Your task to perform on an android device: open app "Adobe Express: Graphic Design" (install if not already installed) Image 0: 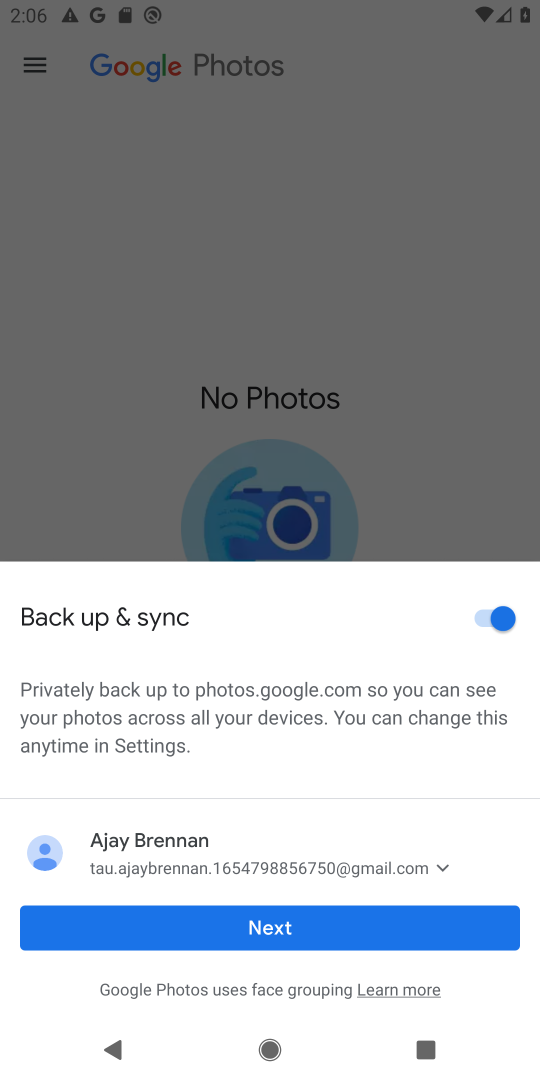
Step 0: press home button
Your task to perform on an android device: open app "Adobe Express: Graphic Design" (install if not already installed) Image 1: 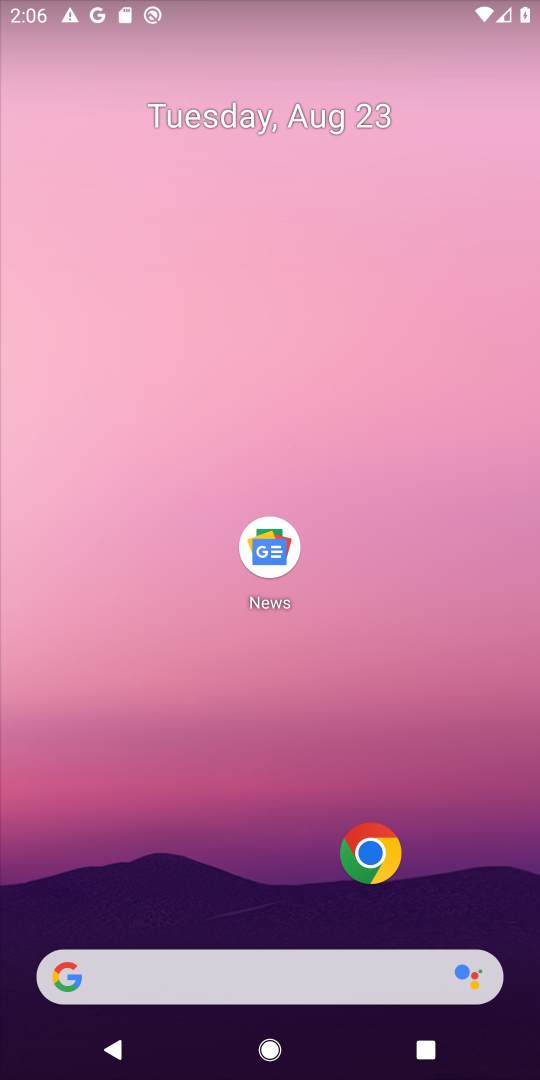
Step 1: drag from (515, 941) to (434, 115)
Your task to perform on an android device: open app "Adobe Express: Graphic Design" (install if not already installed) Image 2: 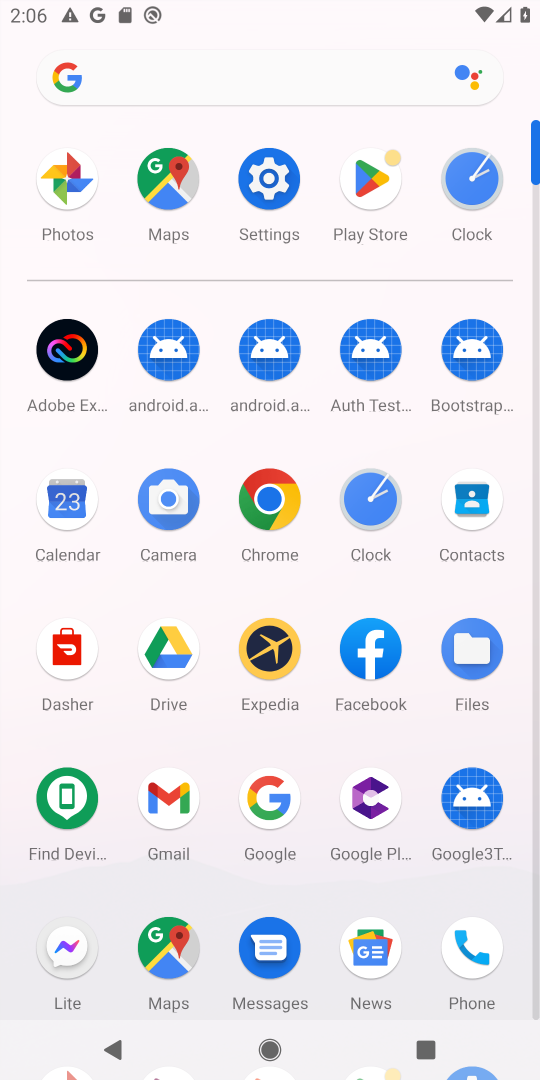
Step 2: click (538, 980)
Your task to perform on an android device: open app "Adobe Express: Graphic Design" (install if not already installed) Image 3: 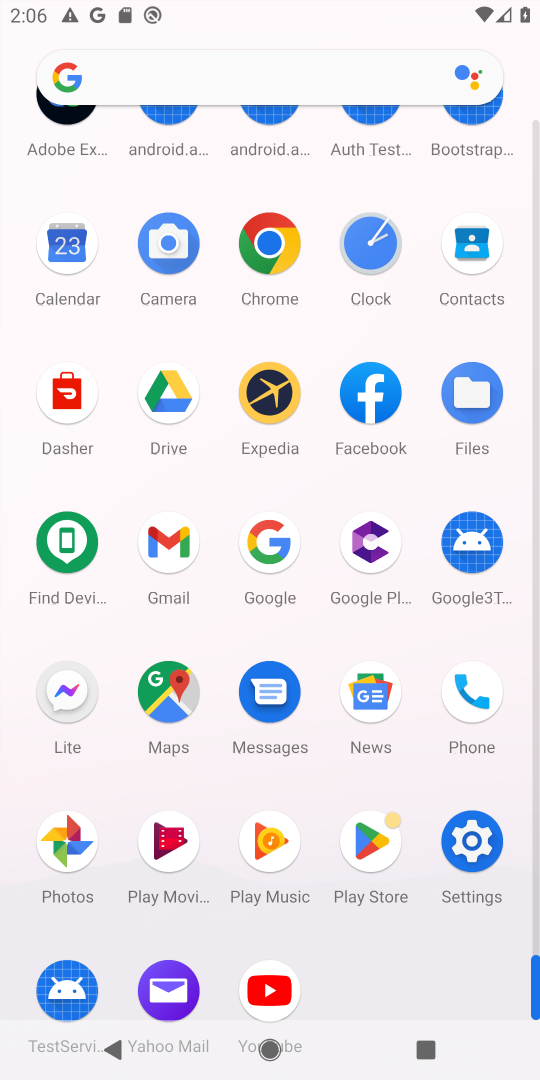
Step 3: click (373, 837)
Your task to perform on an android device: open app "Adobe Express: Graphic Design" (install if not already installed) Image 4: 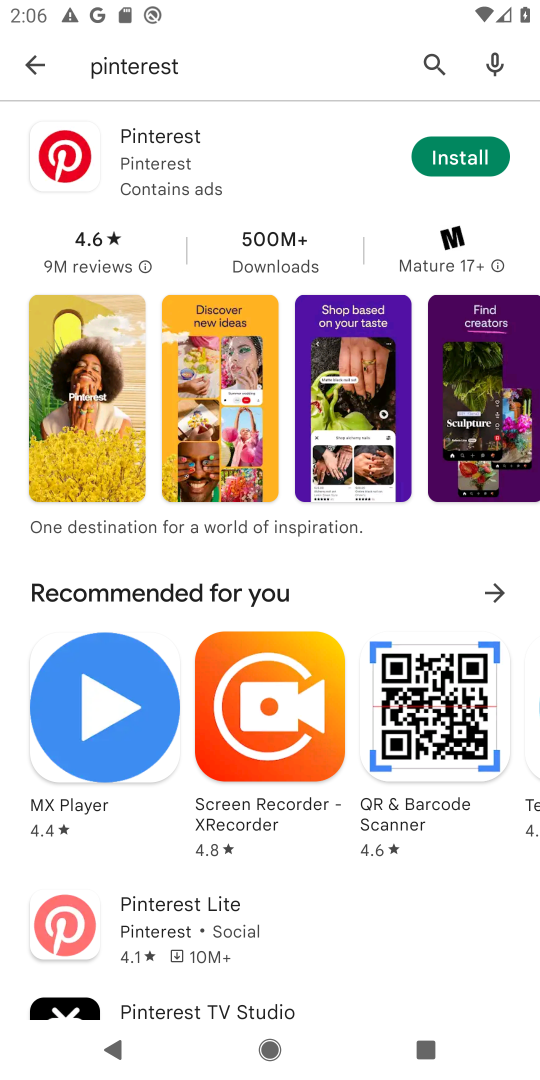
Step 4: click (432, 67)
Your task to perform on an android device: open app "Adobe Express: Graphic Design" (install if not already installed) Image 5: 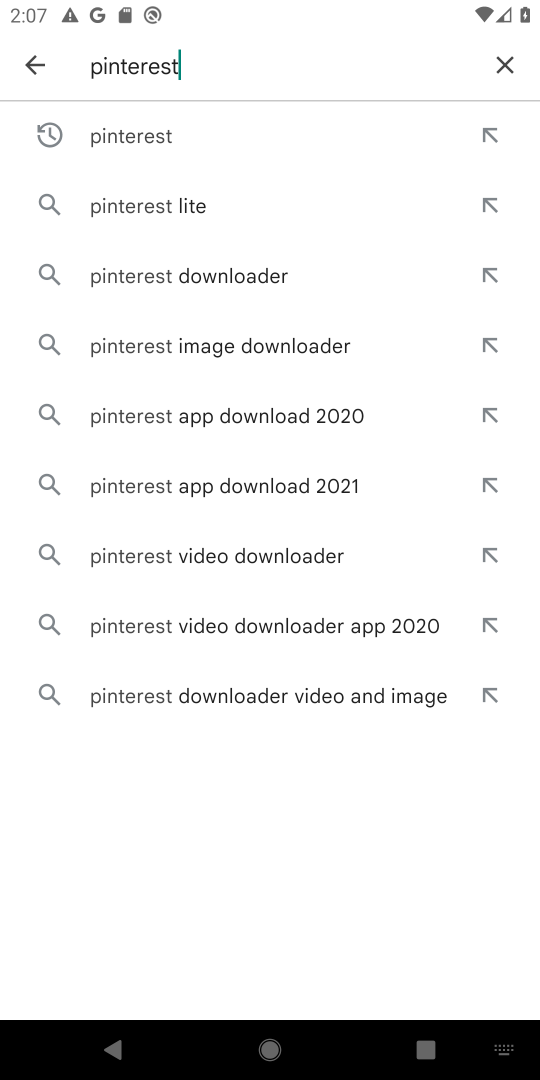
Step 5: click (505, 62)
Your task to perform on an android device: open app "Adobe Express: Graphic Design" (install if not already installed) Image 6: 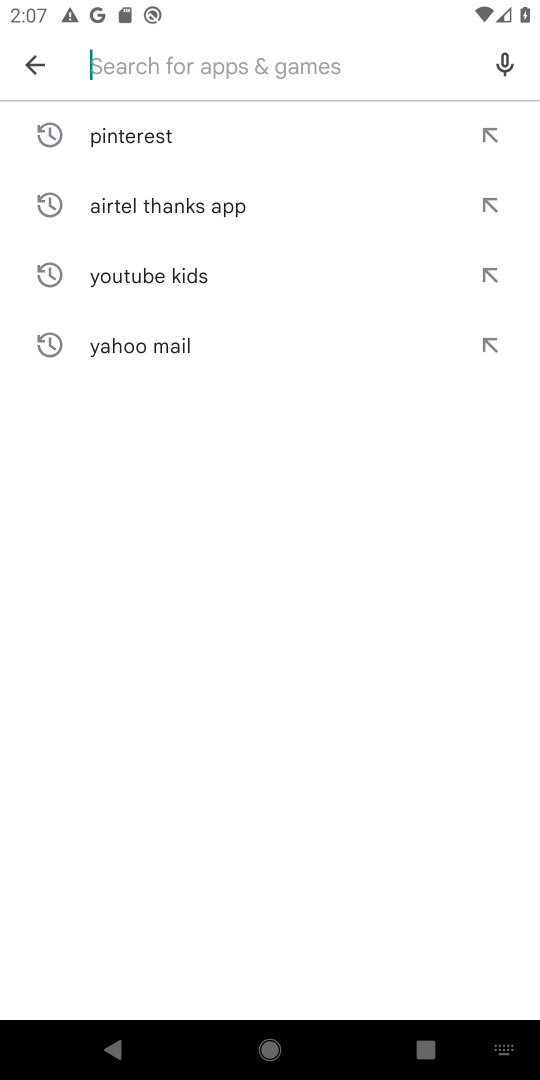
Step 6: type "Adobe Express: Graphic Design"
Your task to perform on an android device: open app "Adobe Express: Graphic Design" (install if not already installed) Image 7: 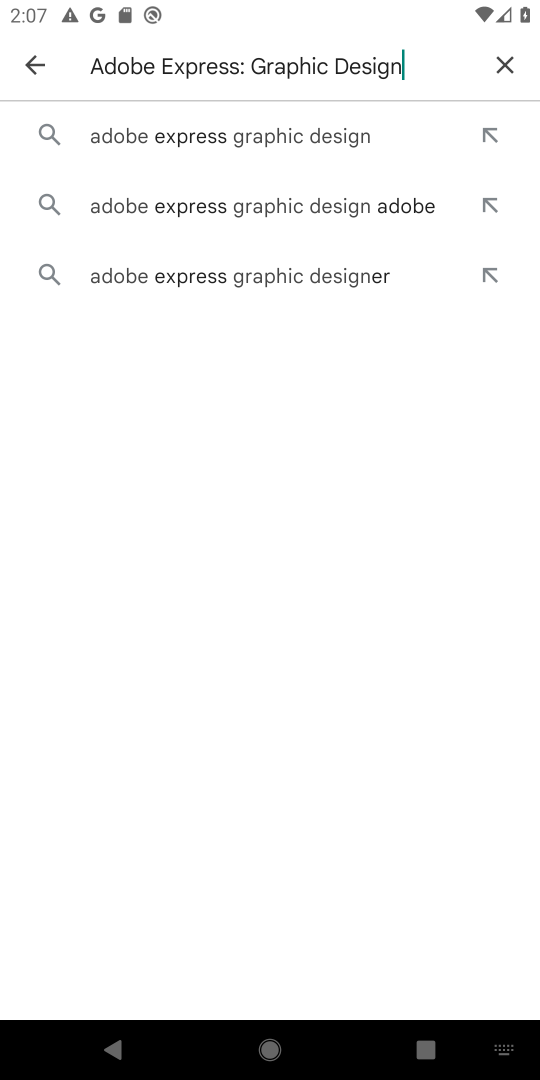
Step 7: click (169, 129)
Your task to perform on an android device: open app "Adobe Express: Graphic Design" (install if not already installed) Image 8: 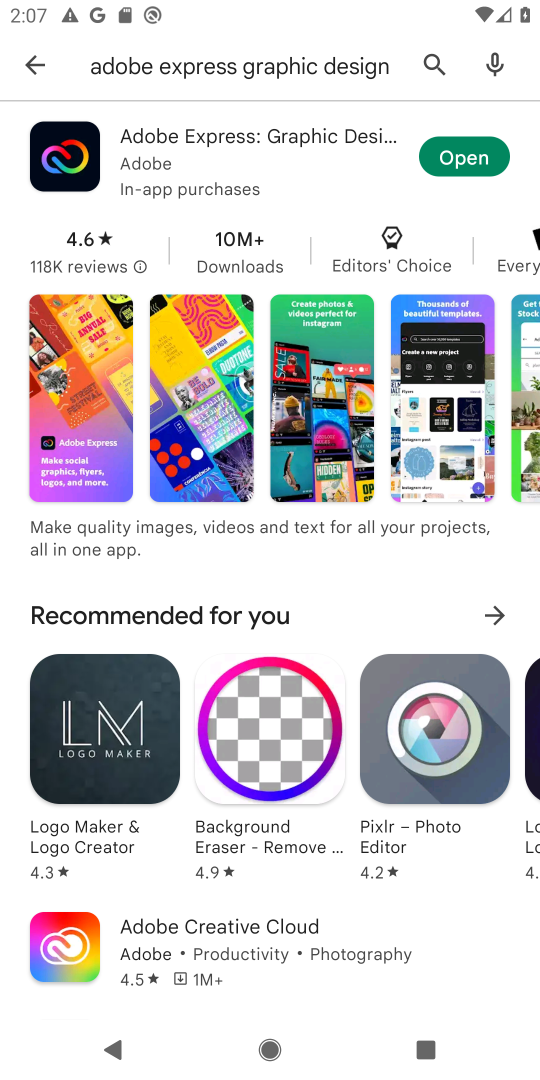
Step 8: click (465, 156)
Your task to perform on an android device: open app "Adobe Express: Graphic Design" (install if not already installed) Image 9: 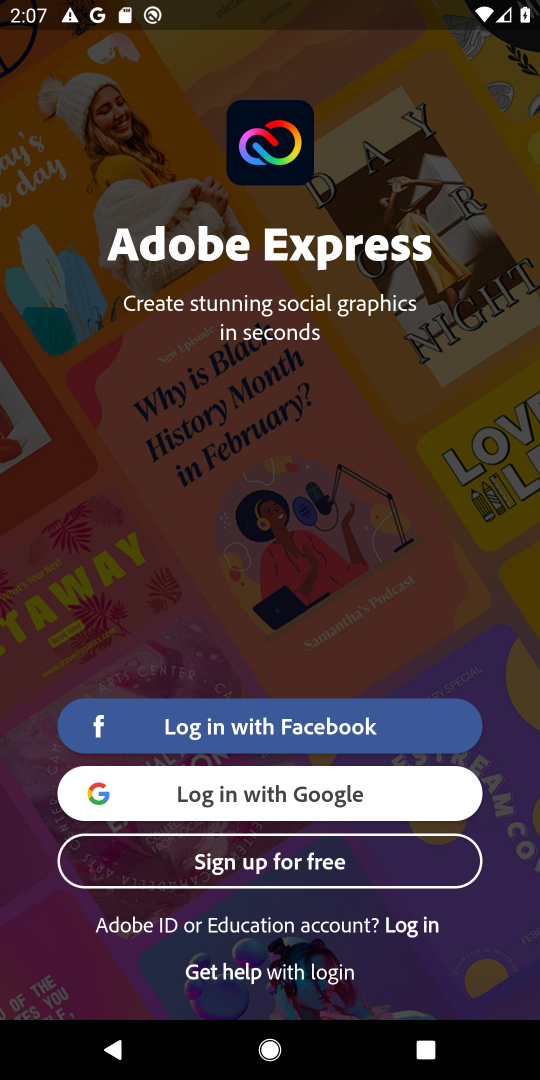
Step 9: task complete